Your task to perform on an android device: move an email to a new category in the gmail app Image 0: 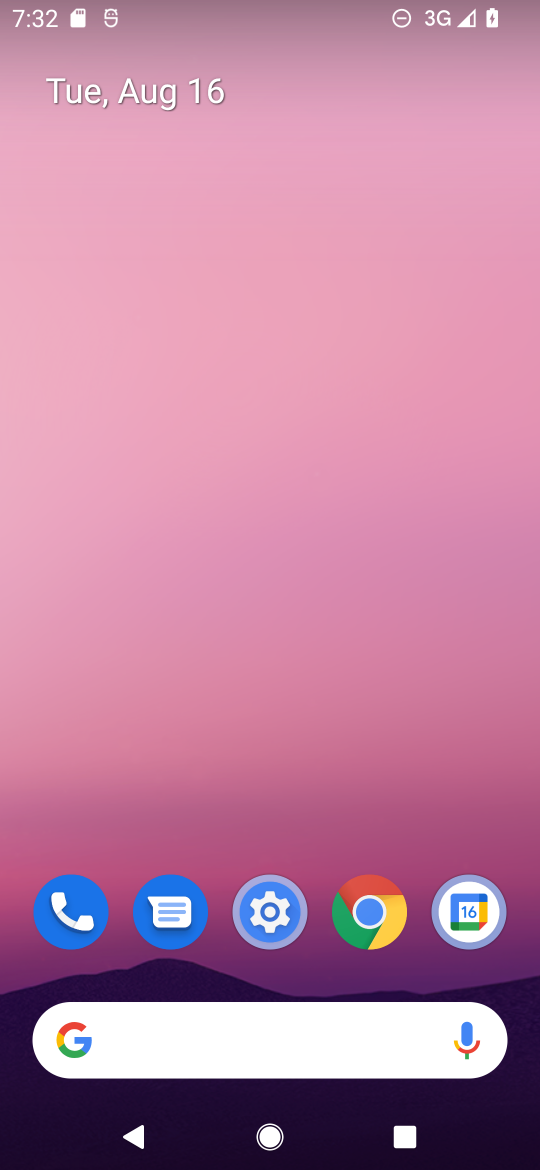
Step 0: drag from (426, 982) to (419, 126)
Your task to perform on an android device: move an email to a new category in the gmail app Image 1: 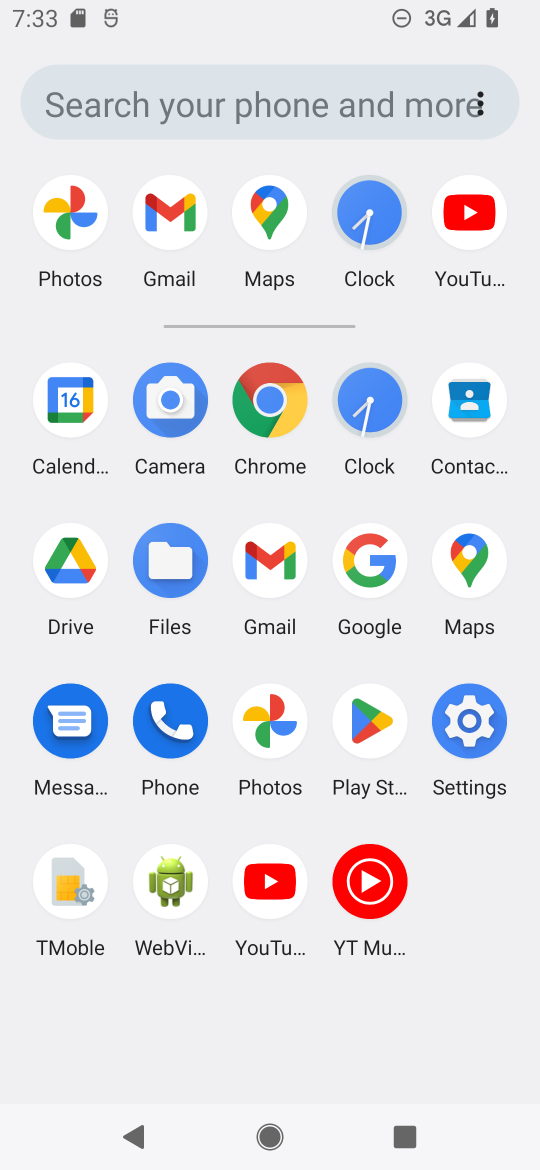
Step 1: click (267, 567)
Your task to perform on an android device: move an email to a new category in the gmail app Image 2: 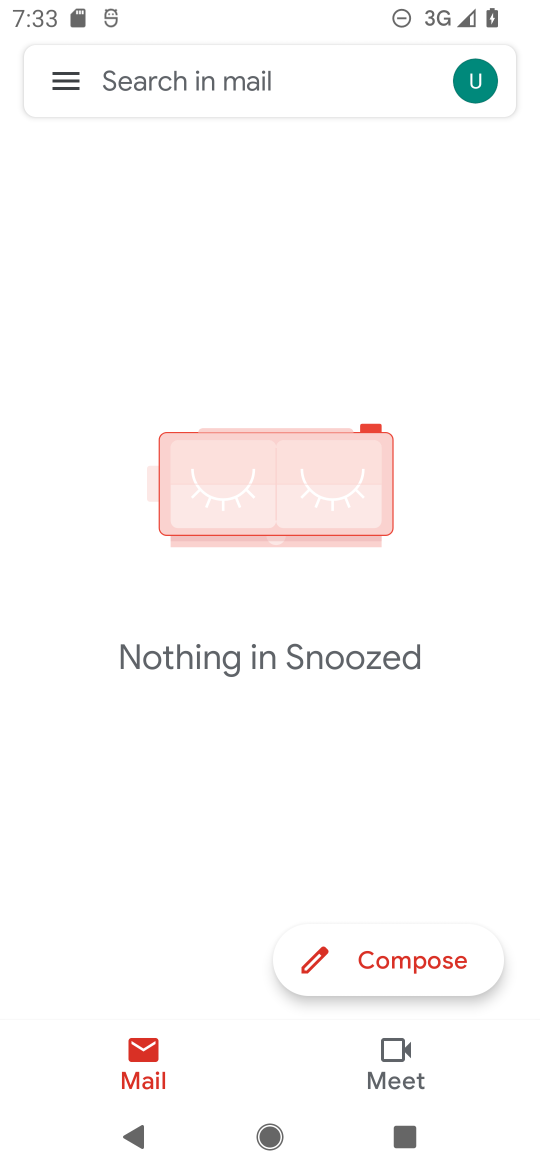
Step 2: click (61, 84)
Your task to perform on an android device: move an email to a new category in the gmail app Image 3: 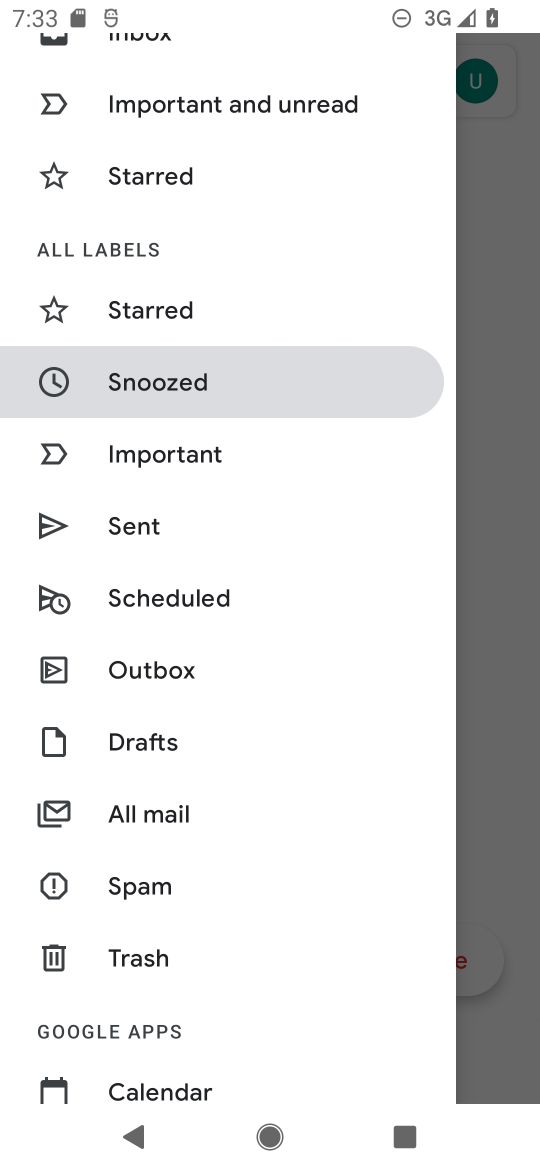
Step 3: click (188, 813)
Your task to perform on an android device: move an email to a new category in the gmail app Image 4: 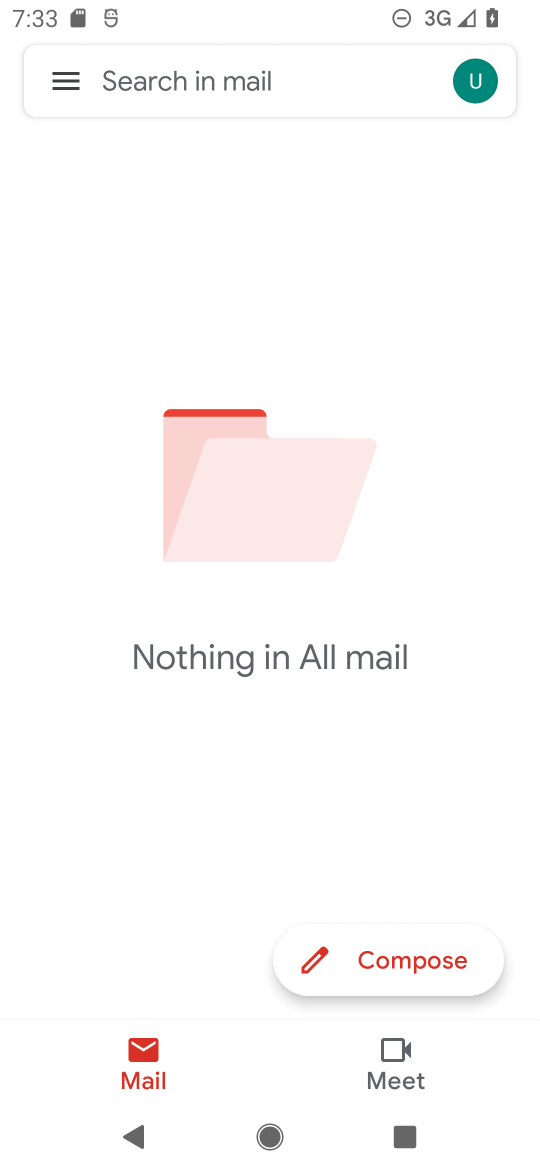
Step 4: task complete